Your task to perform on an android device: toggle wifi Image 0: 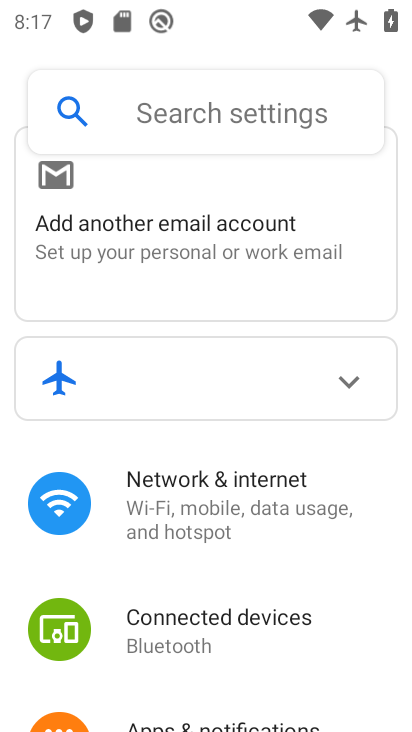
Step 0: press home button
Your task to perform on an android device: toggle wifi Image 1: 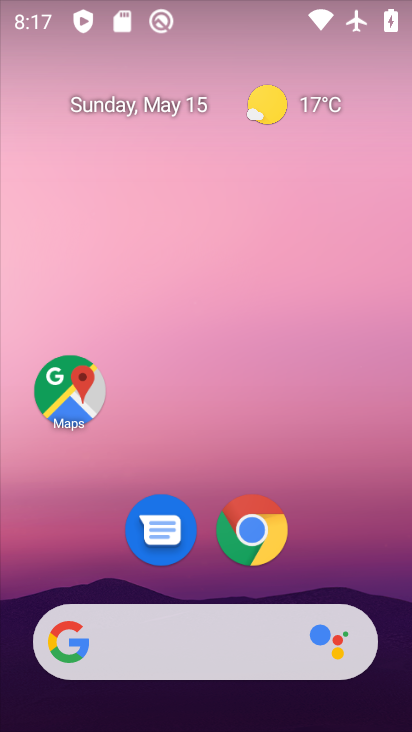
Step 1: click (210, 317)
Your task to perform on an android device: toggle wifi Image 2: 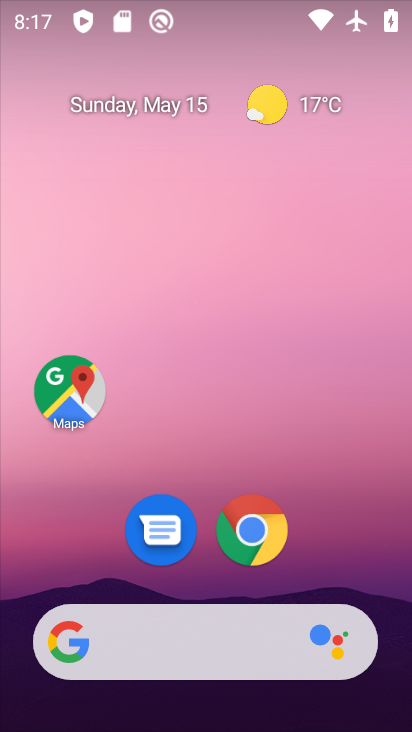
Step 2: drag from (209, 719) to (209, 211)
Your task to perform on an android device: toggle wifi Image 3: 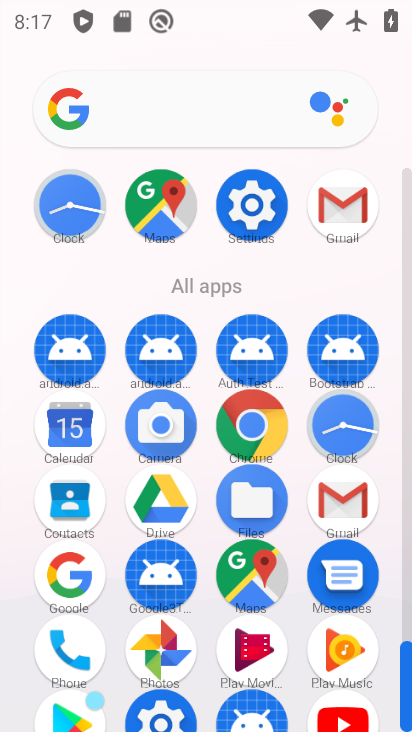
Step 3: click (245, 203)
Your task to perform on an android device: toggle wifi Image 4: 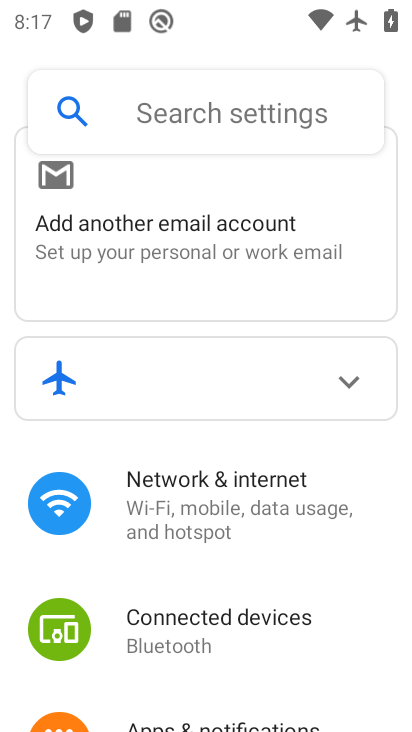
Step 4: click (163, 497)
Your task to perform on an android device: toggle wifi Image 5: 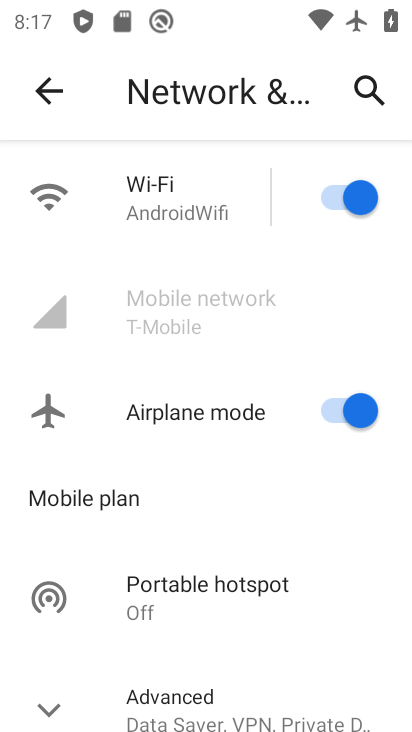
Step 5: click (344, 203)
Your task to perform on an android device: toggle wifi Image 6: 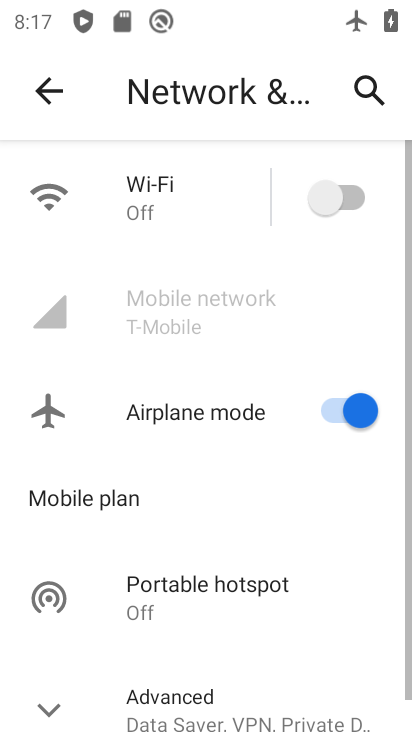
Step 6: task complete